Your task to perform on an android device: Go to CNN.com Image 0: 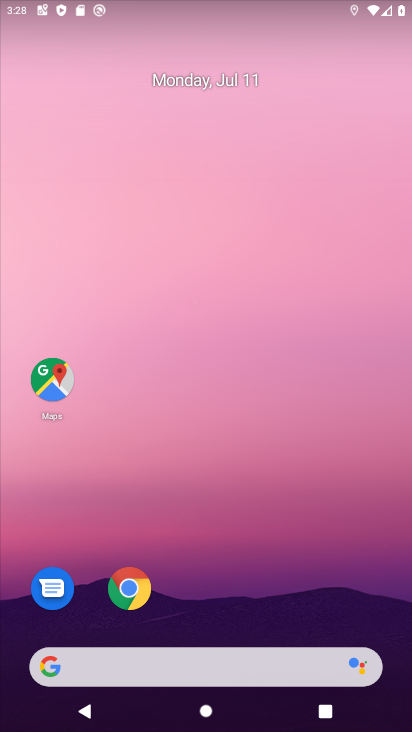
Step 0: drag from (184, 644) to (153, 333)
Your task to perform on an android device: Go to CNN.com Image 1: 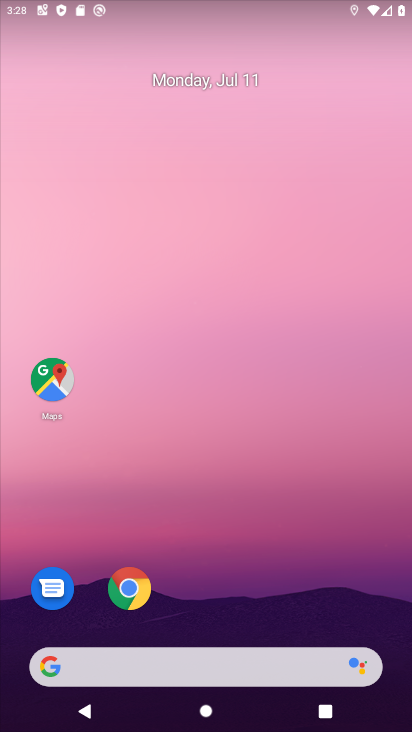
Step 1: task complete